Your task to perform on an android device: snooze an email in the gmail app Image 0: 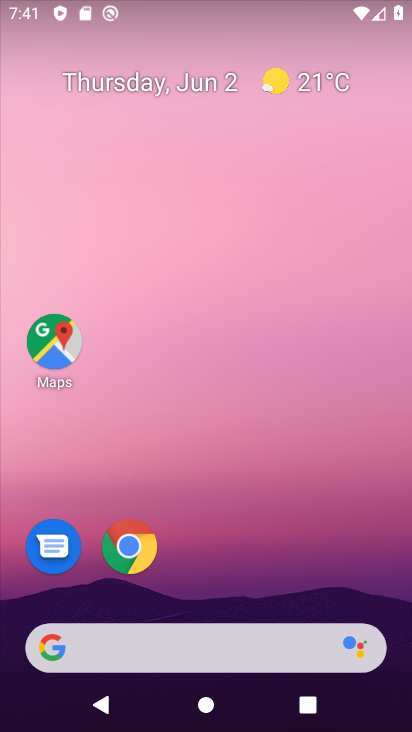
Step 0: drag from (221, 544) to (175, 22)
Your task to perform on an android device: snooze an email in the gmail app Image 1: 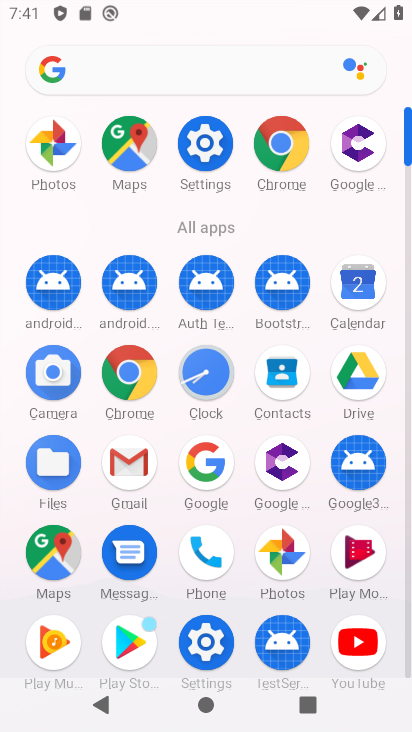
Step 1: click (130, 460)
Your task to perform on an android device: snooze an email in the gmail app Image 2: 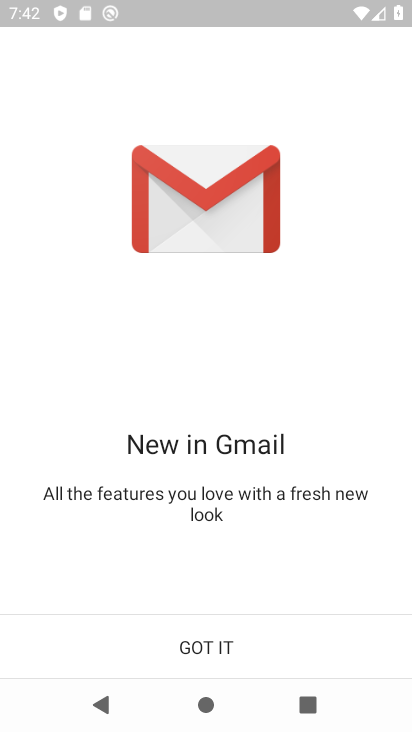
Step 2: click (219, 647)
Your task to perform on an android device: snooze an email in the gmail app Image 3: 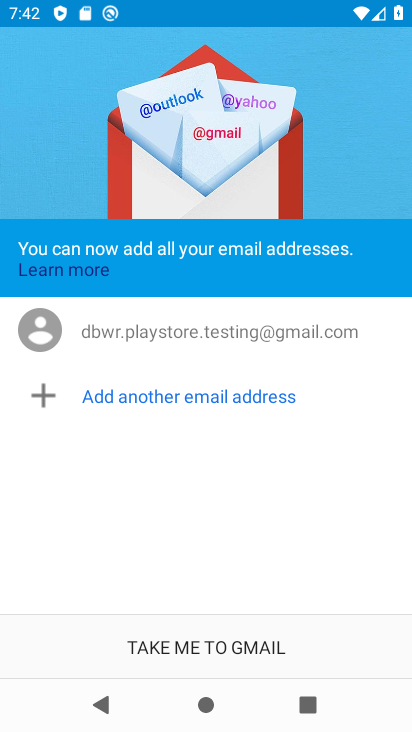
Step 3: click (219, 647)
Your task to perform on an android device: snooze an email in the gmail app Image 4: 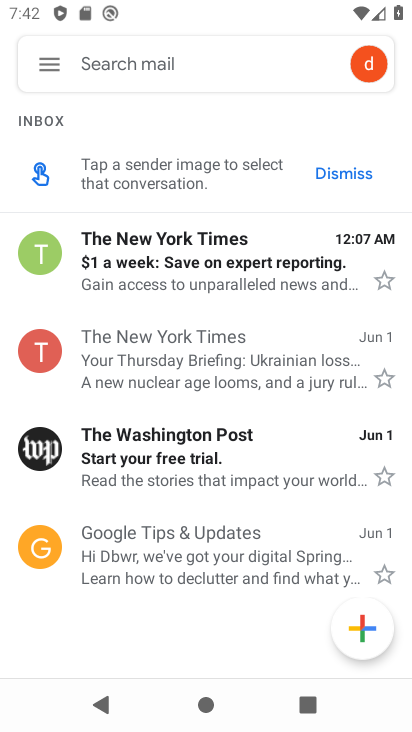
Step 4: click (277, 365)
Your task to perform on an android device: snooze an email in the gmail app Image 5: 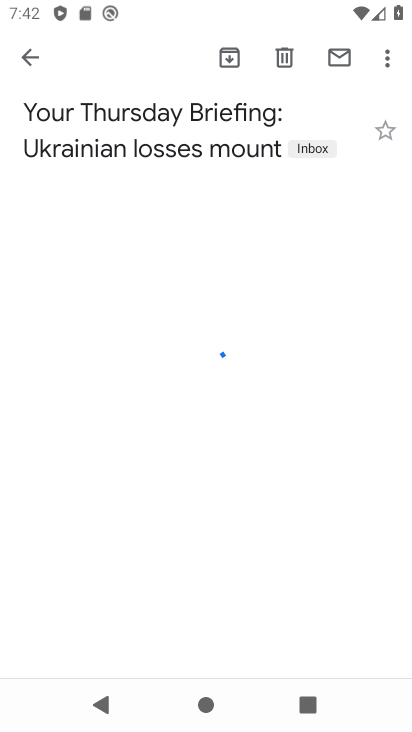
Step 5: click (387, 57)
Your task to perform on an android device: snooze an email in the gmail app Image 6: 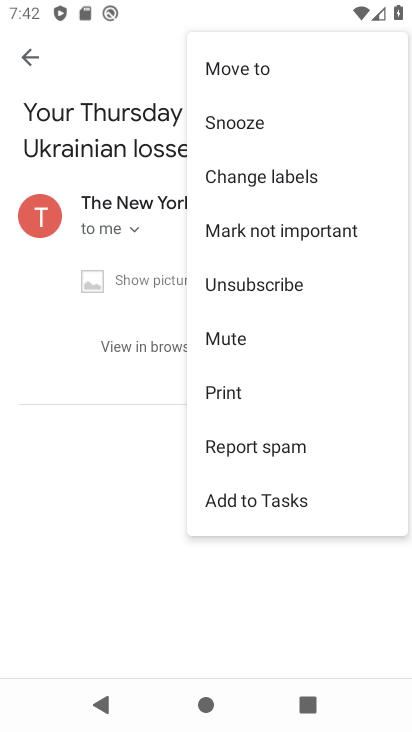
Step 6: click (313, 121)
Your task to perform on an android device: snooze an email in the gmail app Image 7: 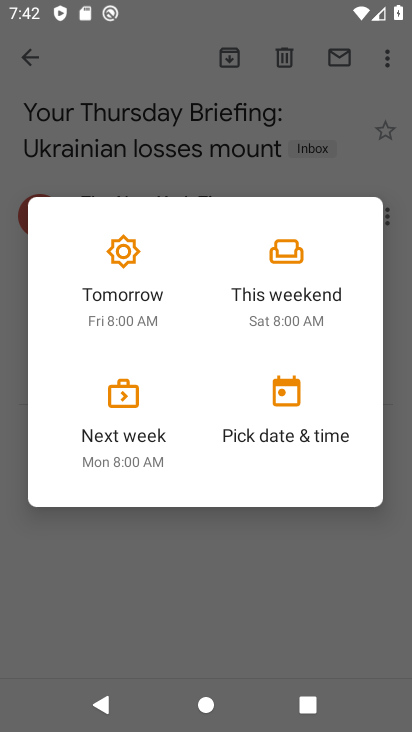
Step 7: click (146, 281)
Your task to perform on an android device: snooze an email in the gmail app Image 8: 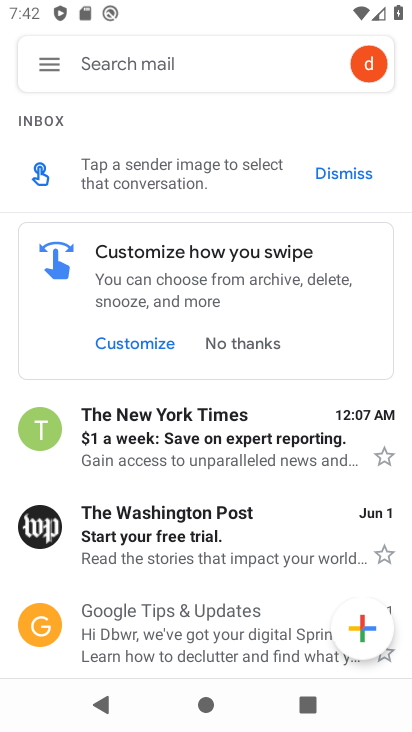
Step 8: task complete